Your task to perform on an android device: toggle data saver in the chrome app Image 0: 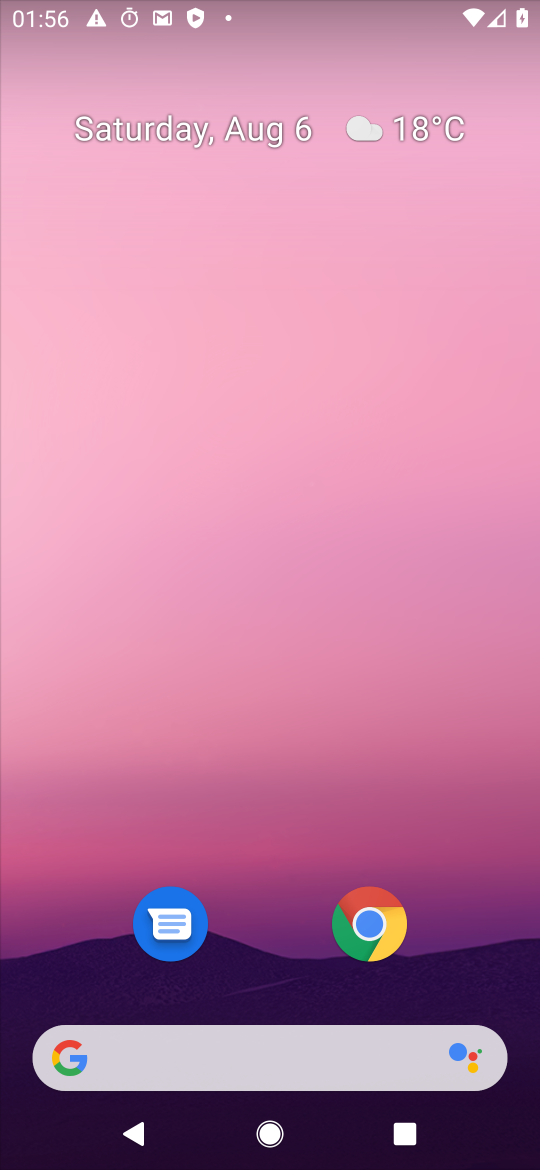
Step 0: drag from (347, 1067) to (424, 2)
Your task to perform on an android device: toggle data saver in the chrome app Image 1: 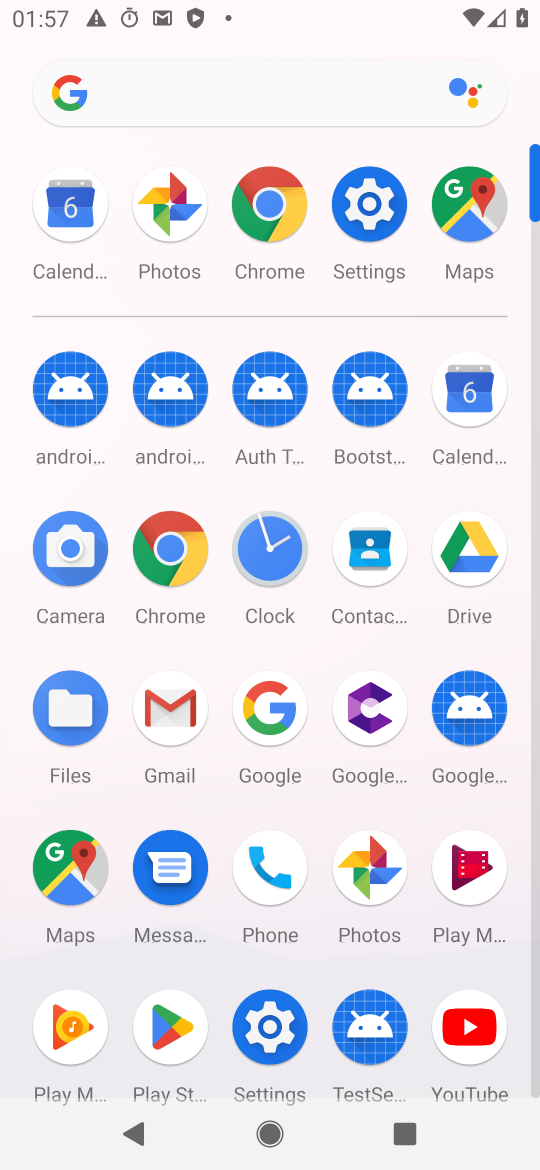
Step 1: click (160, 559)
Your task to perform on an android device: toggle data saver in the chrome app Image 2: 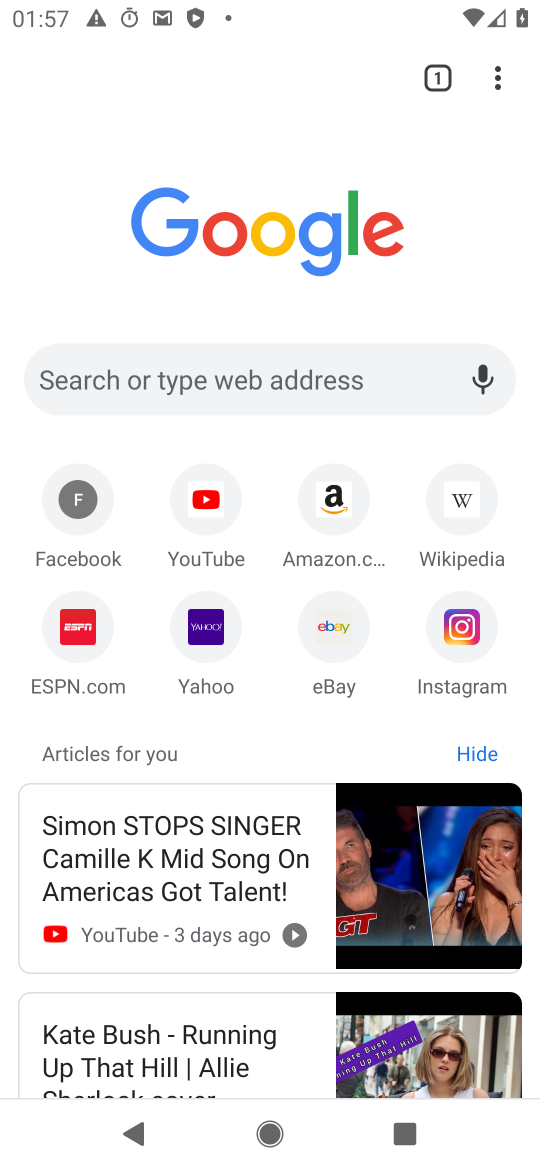
Step 2: click (495, 60)
Your task to perform on an android device: toggle data saver in the chrome app Image 3: 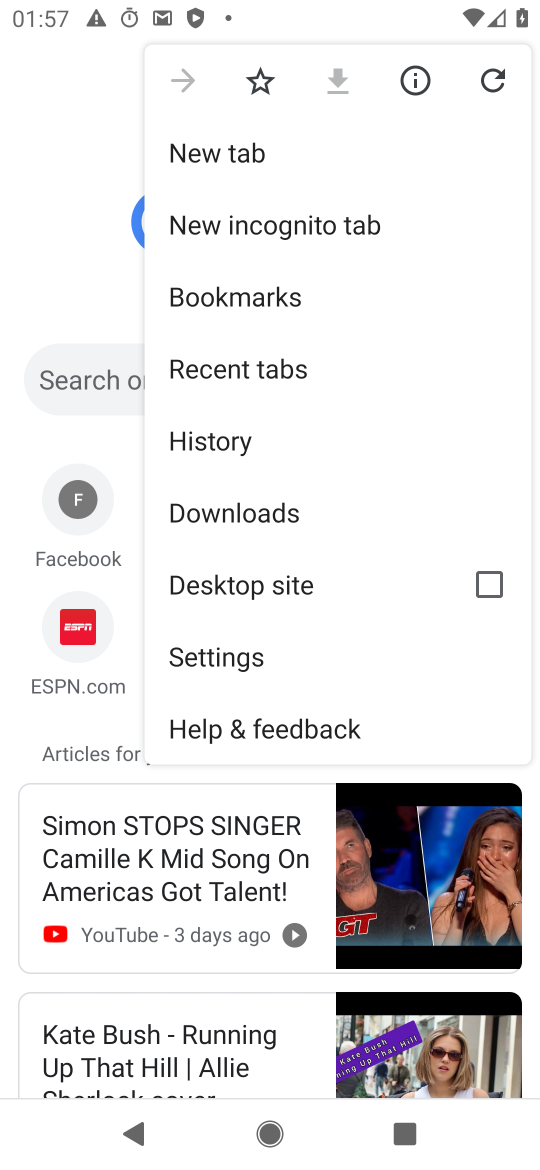
Step 3: click (311, 658)
Your task to perform on an android device: toggle data saver in the chrome app Image 4: 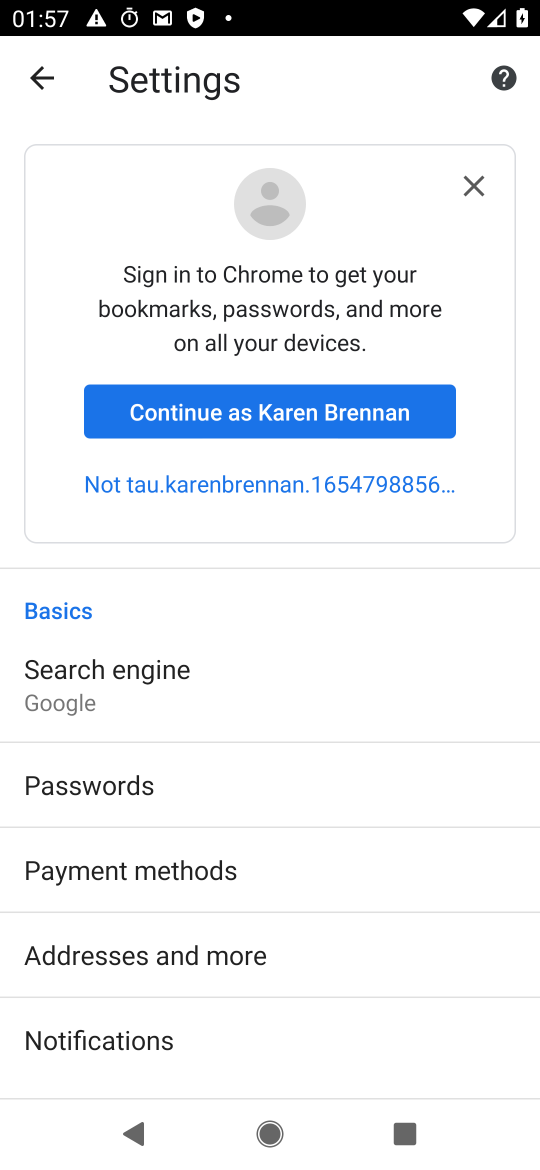
Step 4: drag from (346, 1042) to (408, 216)
Your task to perform on an android device: toggle data saver in the chrome app Image 5: 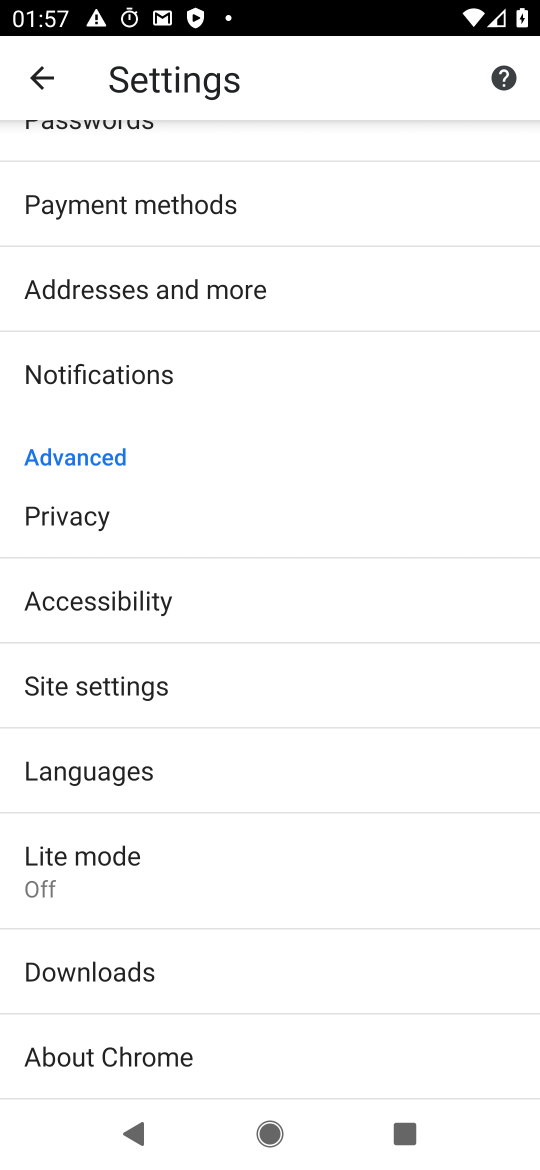
Step 5: click (154, 690)
Your task to perform on an android device: toggle data saver in the chrome app Image 6: 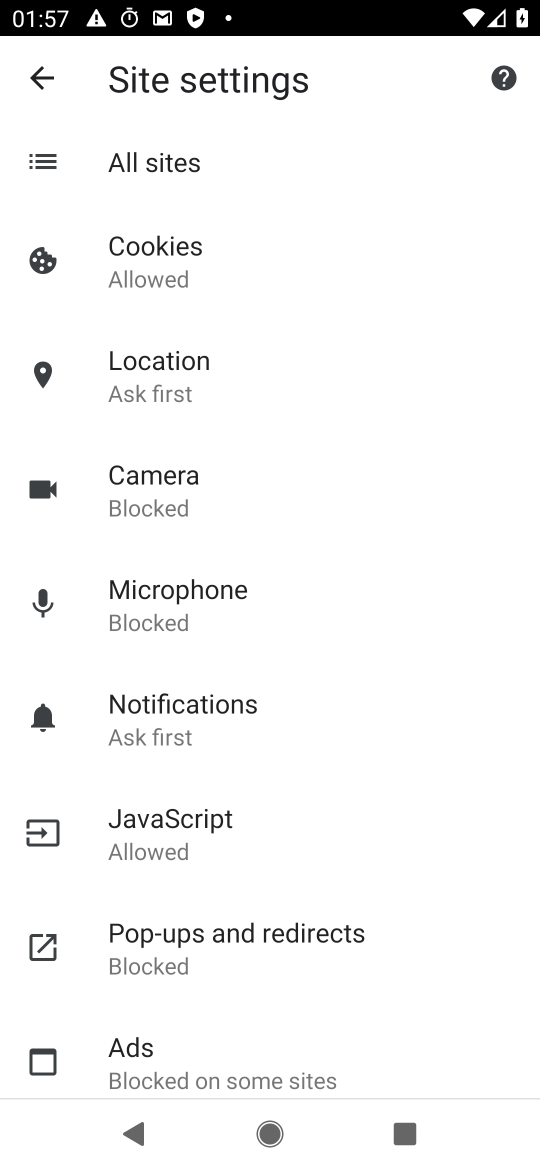
Step 6: press back button
Your task to perform on an android device: toggle data saver in the chrome app Image 7: 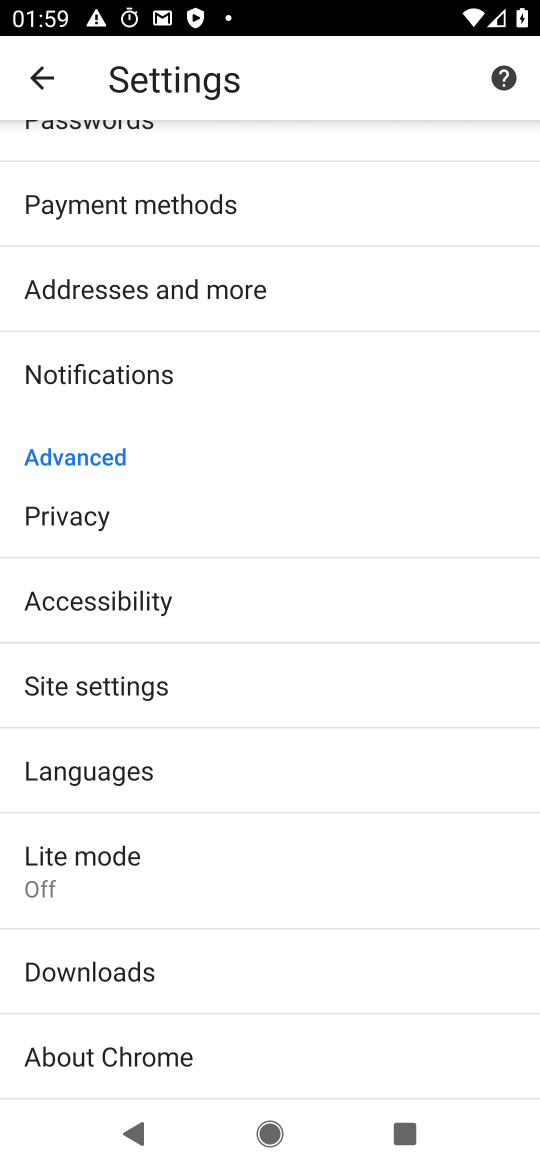
Step 7: click (154, 689)
Your task to perform on an android device: toggle data saver in the chrome app Image 8: 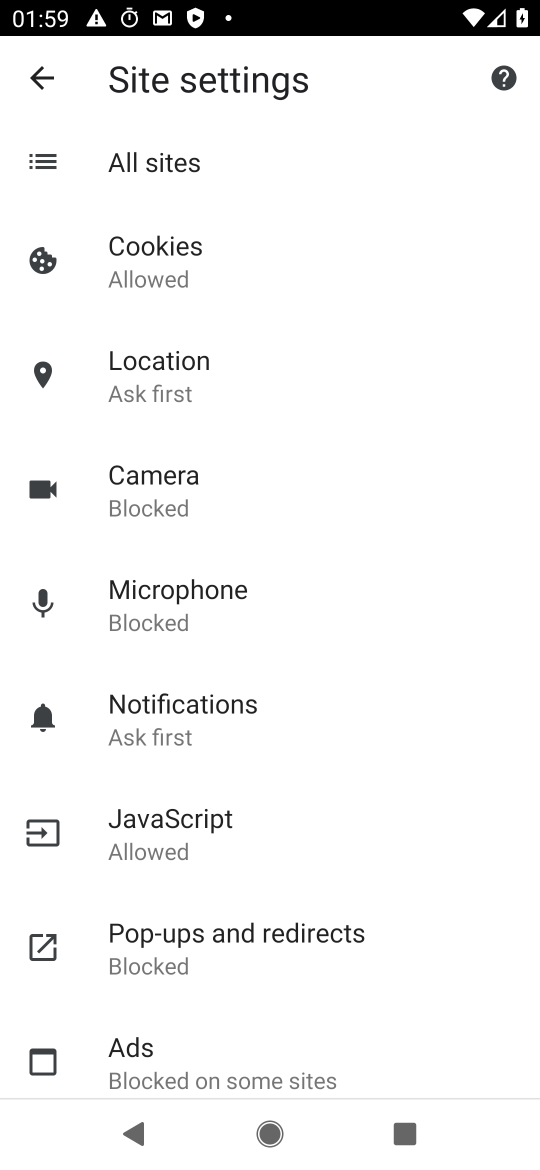
Step 8: press back button
Your task to perform on an android device: toggle data saver in the chrome app Image 9: 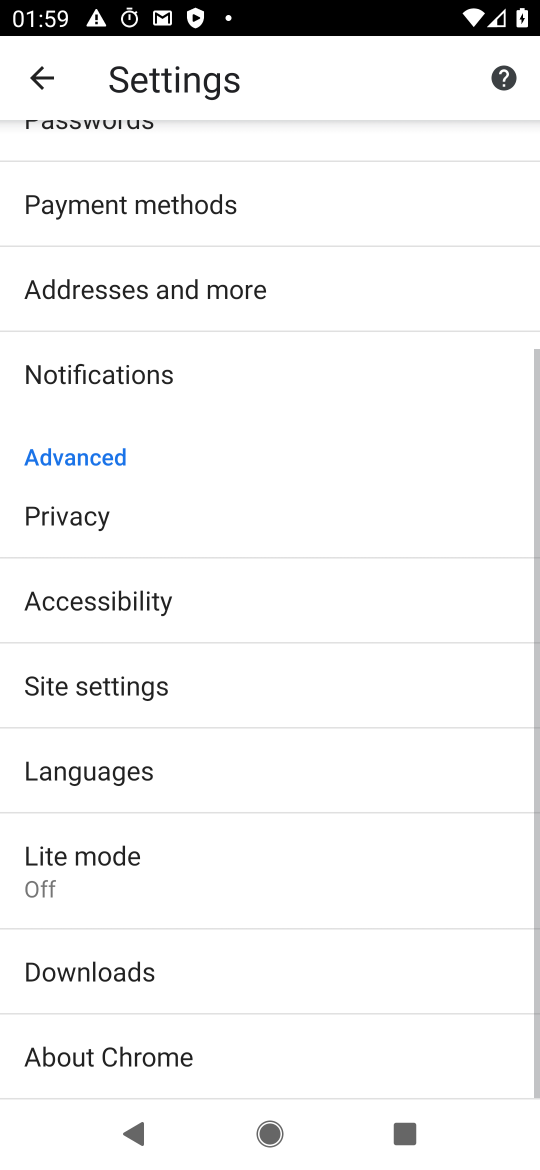
Step 9: click (115, 863)
Your task to perform on an android device: toggle data saver in the chrome app Image 10: 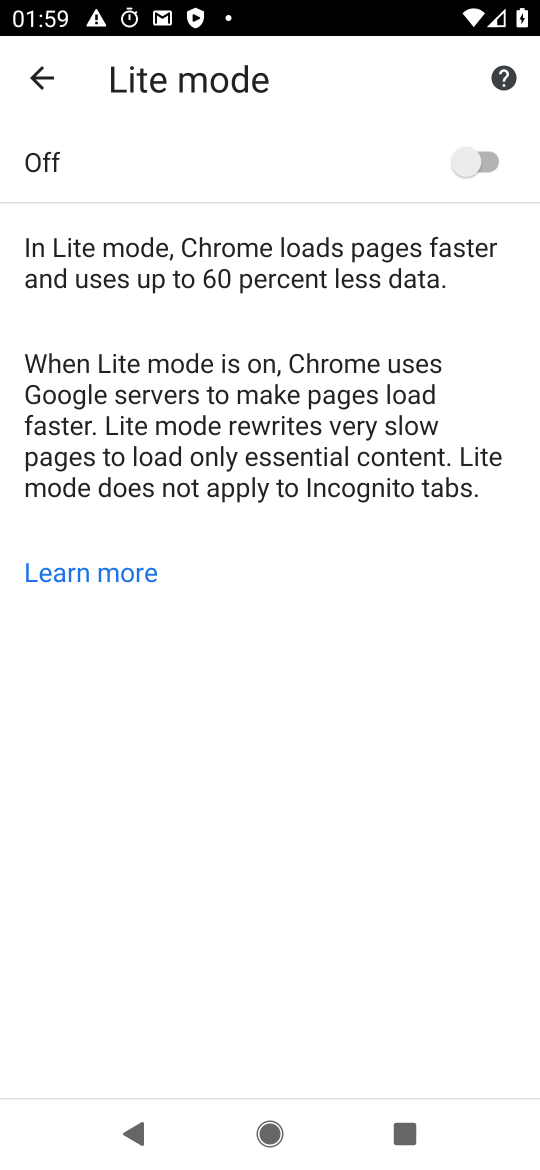
Step 10: click (489, 146)
Your task to perform on an android device: toggle data saver in the chrome app Image 11: 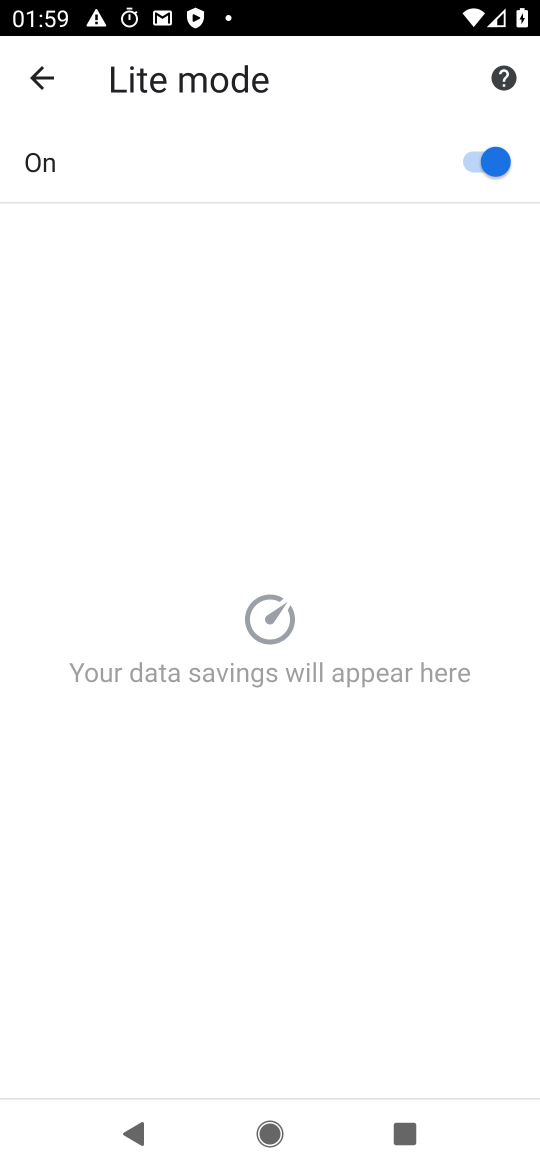
Step 11: task complete